Your task to perform on an android device: manage bookmarks in the chrome app Image 0: 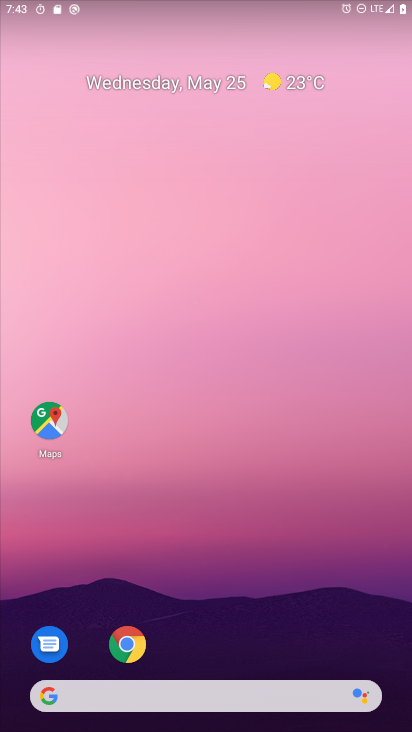
Step 0: drag from (334, 611) to (243, 63)
Your task to perform on an android device: manage bookmarks in the chrome app Image 1: 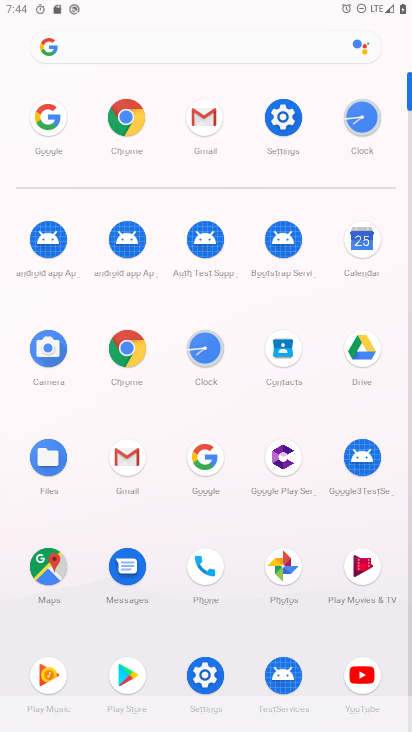
Step 1: click (136, 354)
Your task to perform on an android device: manage bookmarks in the chrome app Image 2: 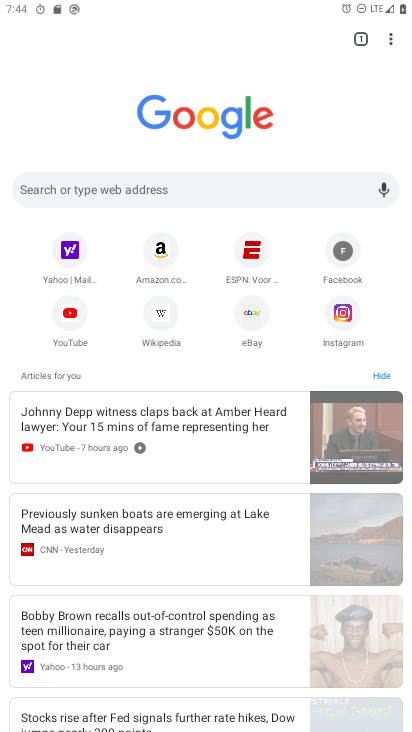
Step 2: click (392, 33)
Your task to perform on an android device: manage bookmarks in the chrome app Image 3: 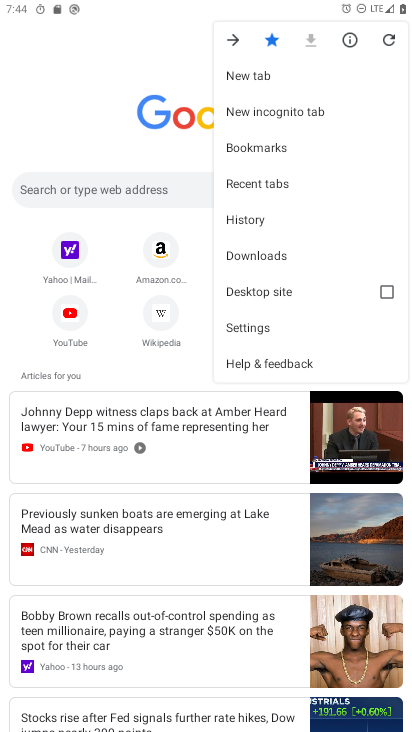
Step 3: click (258, 162)
Your task to perform on an android device: manage bookmarks in the chrome app Image 4: 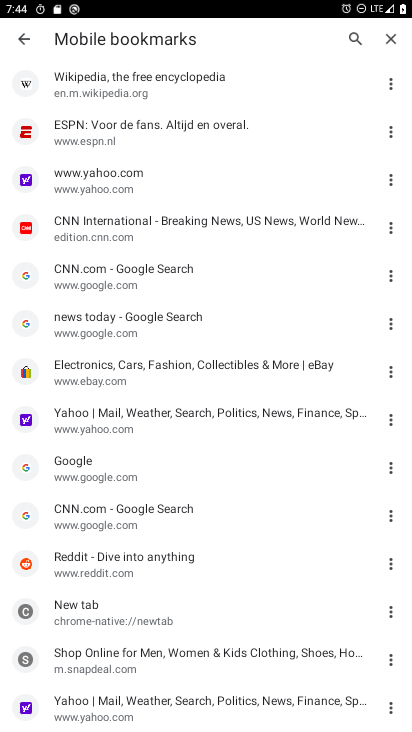
Step 4: task complete